Your task to perform on an android device: change alarm snooze length Image 0: 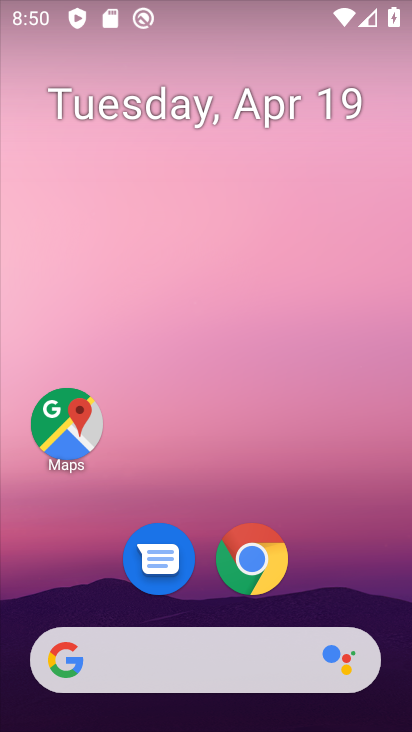
Step 0: drag from (167, 51) to (305, 10)
Your task to perform on an android device: change alarm snooze length Image 1: 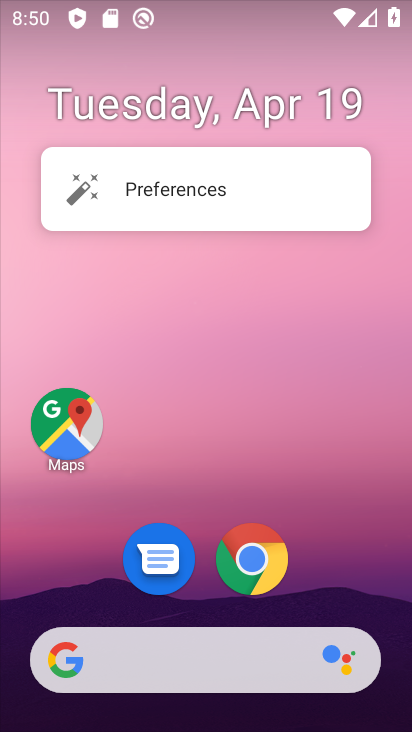
Step 1: drag from (350, 541) to (152, 82)
Your task to perform on an android device: change alarm snooze length Image 2: 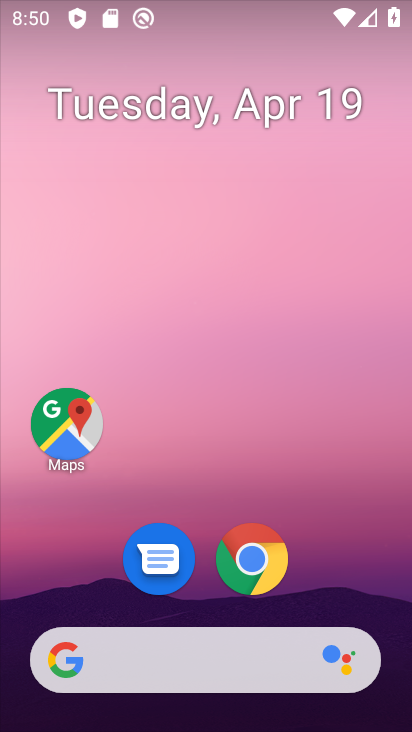
Step 2: drag from (363, 540) to (114, 22)
Your task to perform on an android device: change alarm snooze length Image 3: 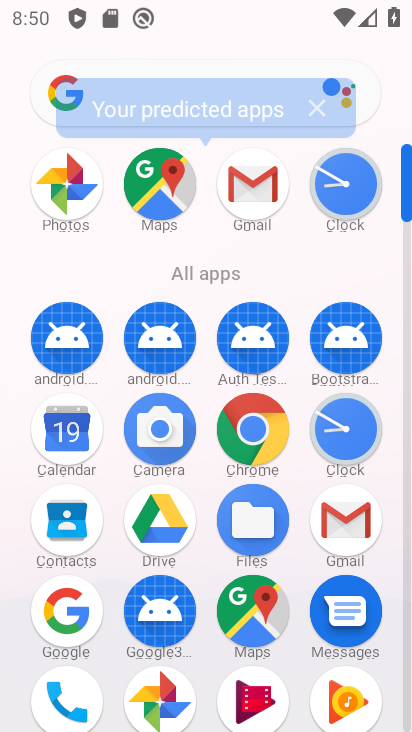
Step 3: click (364, 428)
Your task to perform on an android device: change alarm snooze length Image 4: 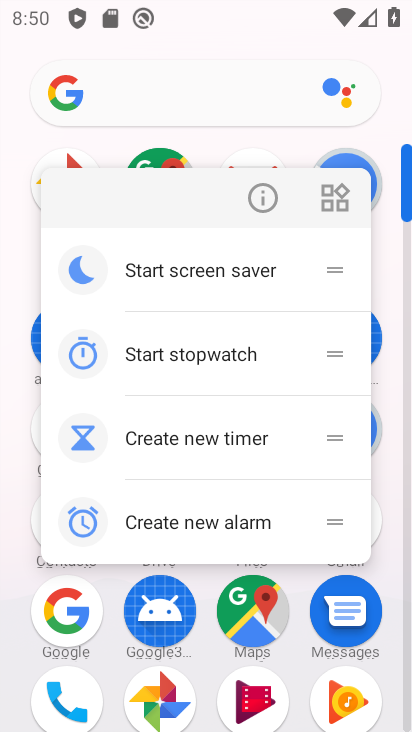
Step 4: press back button
Your task to perform on an android device: change alarm snooze length Image 5: 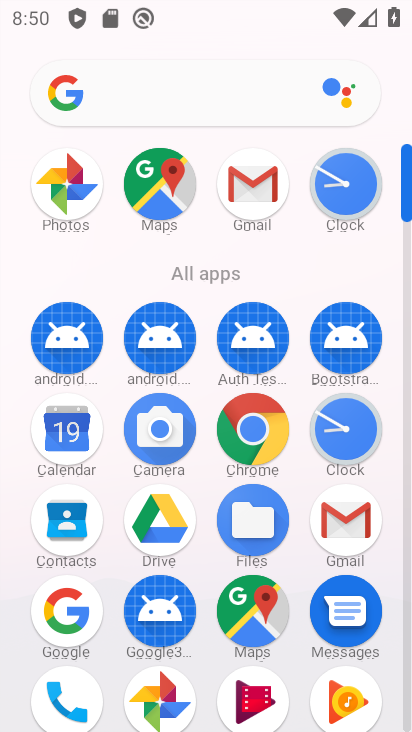
Step 5: click (347, 424)
Your task to perform on an android device: change alarm snooze length Image 6: 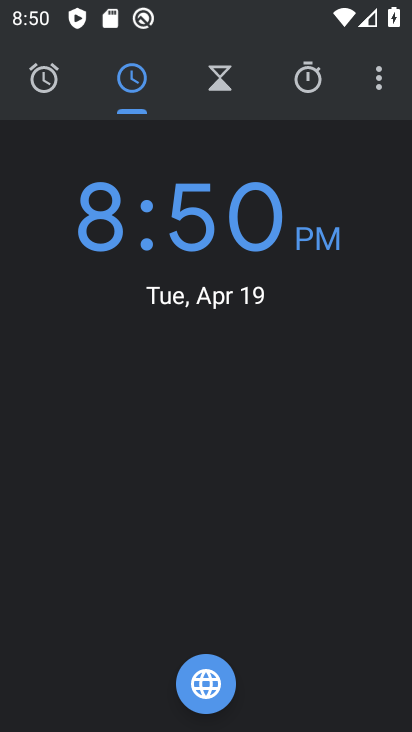
Step 6: click (369, 75)
Your task to perform on an android device: change alarm snooze length Image 7: 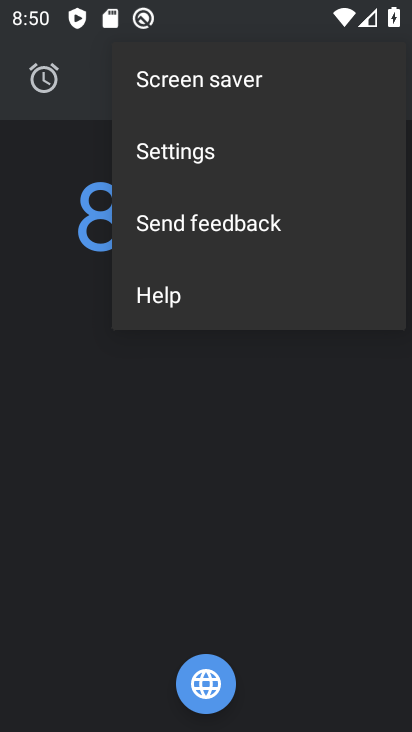
Step 7: click (219, 152)
Your task to perform on an android device: change alarm snooze length Image 8: 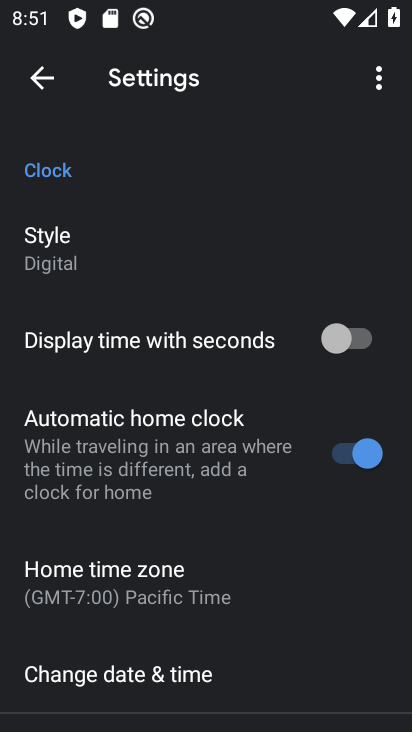
Step 8: drag from (155, 447) to (56, 19)
Your task to perform on an android device: change alarm snooze length Image 9: 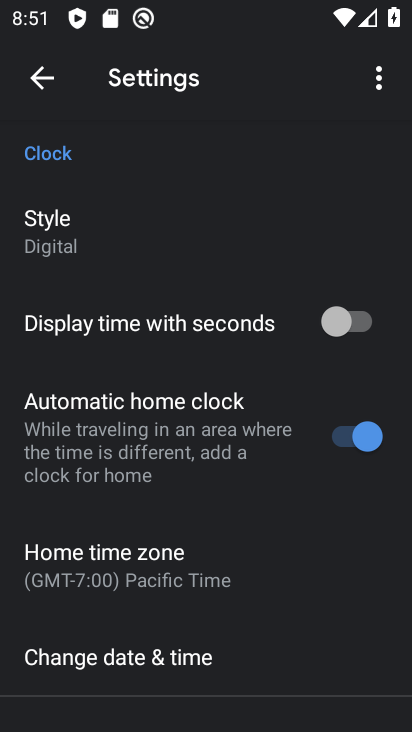
Step 9: drag from (295, 628) to (176, 0)
Your task to perform on an android device: change alarm snooze length Image 10: 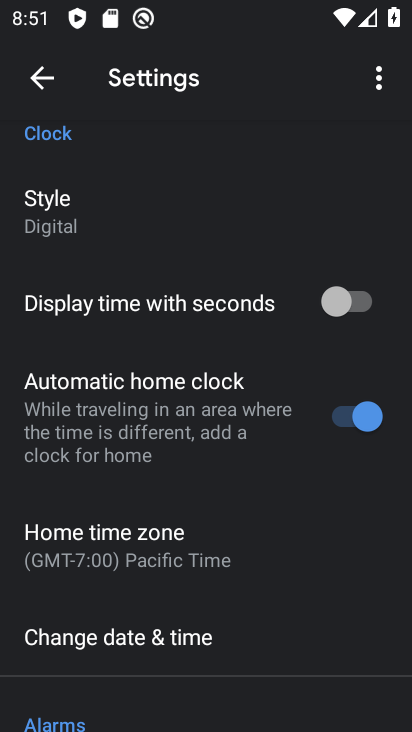
Step 10: drag from (272, 557) to (225, 293)
Your task to perform on an android device: change alarm snooze length Image 11: 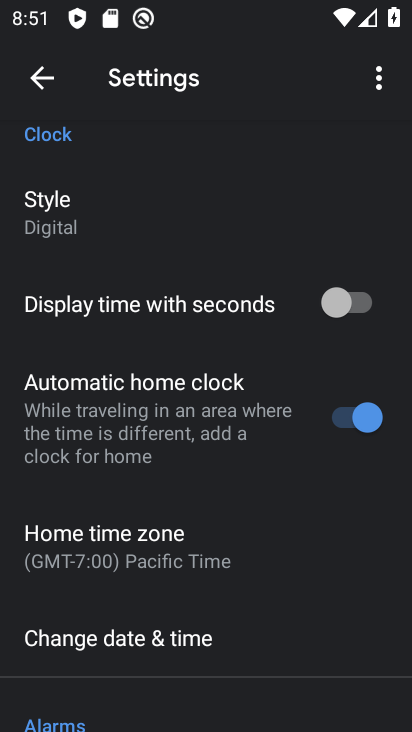
Step 11: drag from (365, 690) to (136, 0)
Your task to perform on an android device: change alarm snooze length Image 12: 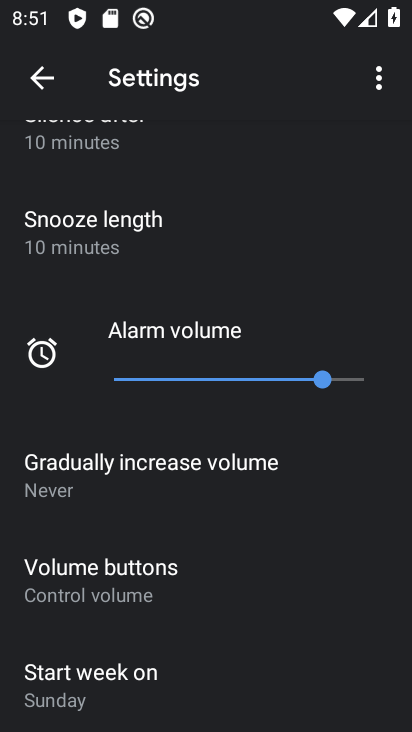
Step 12: drag from (331, 666) to (157, 2)
Your task to perform on an android device: change alarm snooze length Image 13: 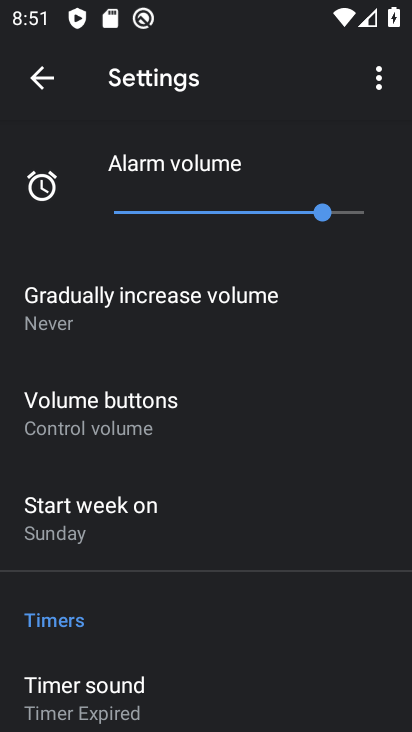
Step 13: drag from (262, 78) to (408, 583)
Your task to perform on an android device: change alarm snooze length Image 14: 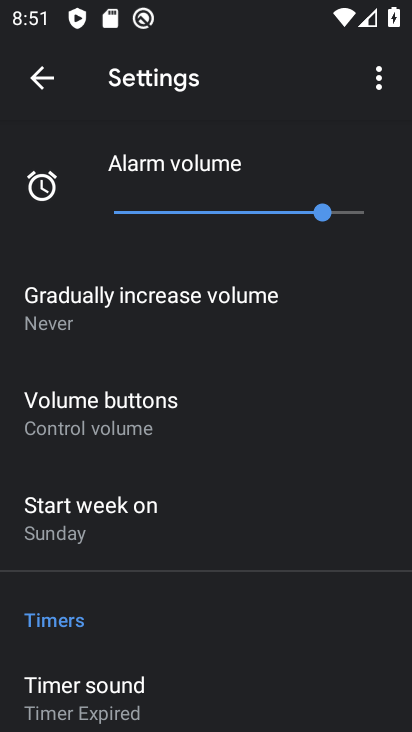
Step 14: drag from (386, 131) to (400, 555)
Your task to perform on an android device: change alarm snooze length Image 15: 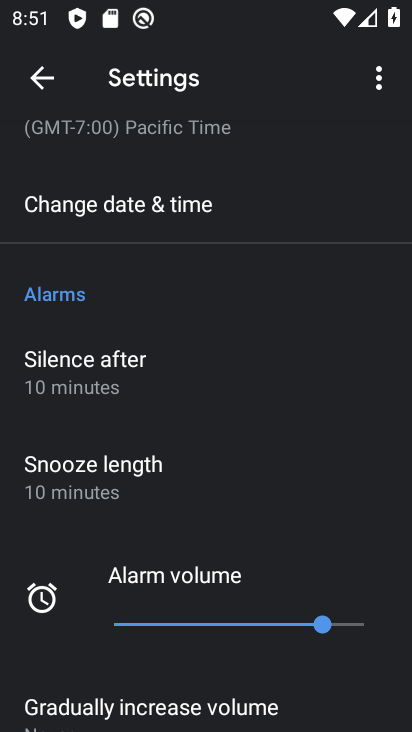
Step 15: click (51, 470)
Your task to perform on an android device: change alarm snooze length Image 16: 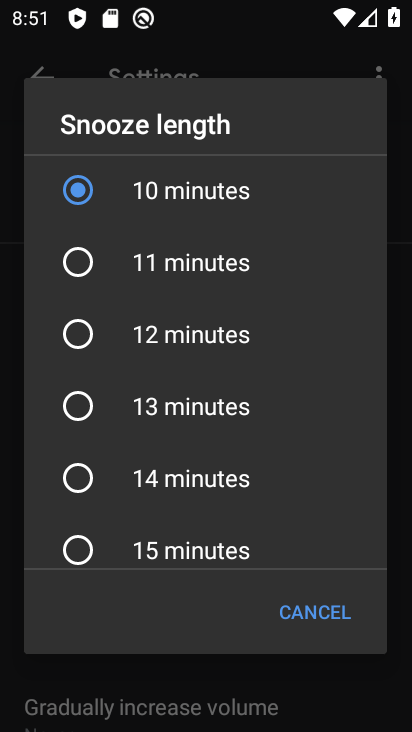
Step 16: click (88, 411)
Your task to perform on an android device: change alarm snooze length Image 17: 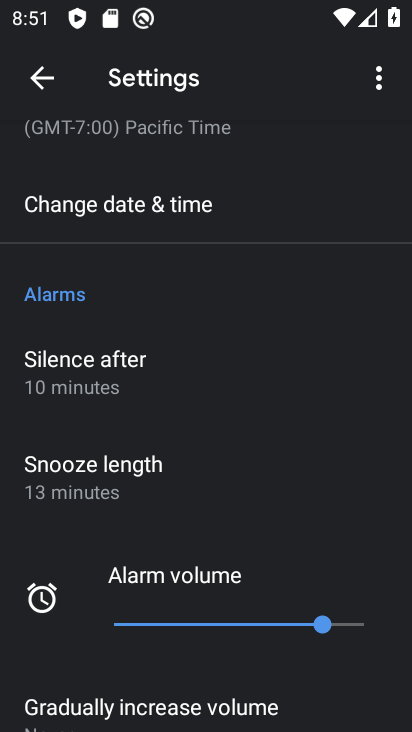
Step 17: task complete